Your task to perform on an android device: toggle airplane mode Image 0: 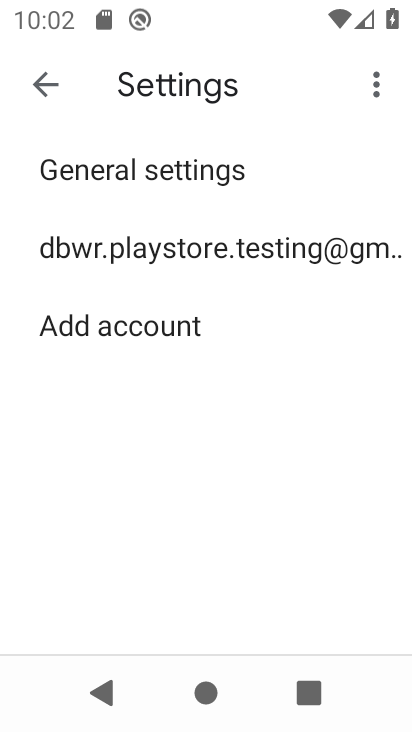
Step 0: press home button
Your task to perform on an android device: toggle airplane mode Image 1: 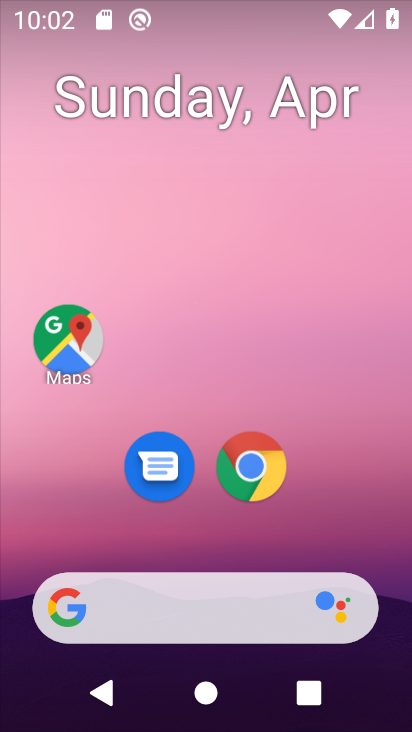
Step 1: drag from (289, 435) to (257, 11)
Your task to perform on an android device: toggle airplane mode Image 2: 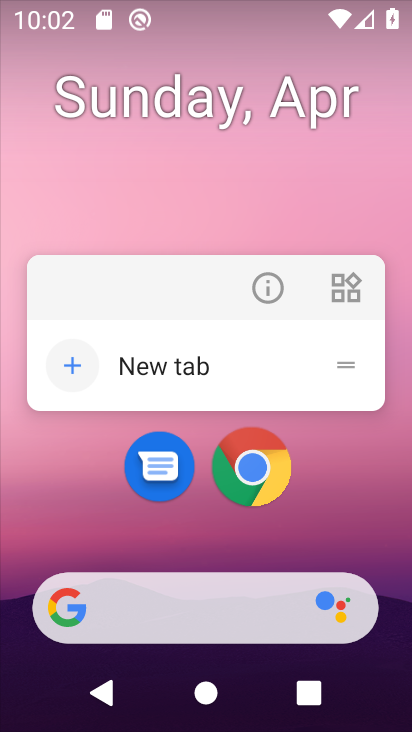
Step 2: drag from (368, 522) to (336, 4)
Your task to perform on an android device: toggle airplane mode Image 3: 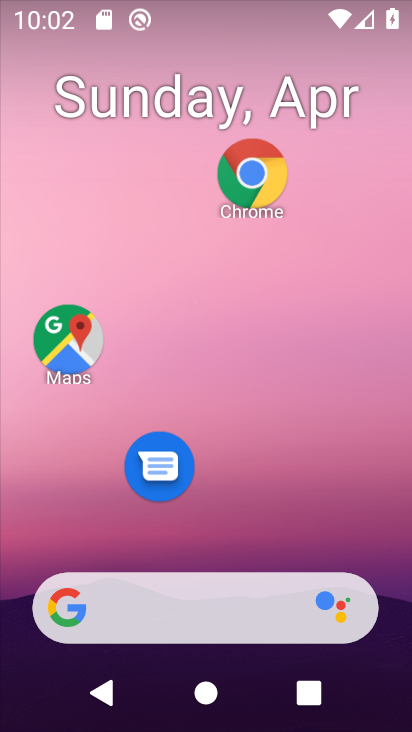
Step 3: drag from (338, 445) to (338, 151)
Your task to perform on an android device: toggle airplane mode Image 4: 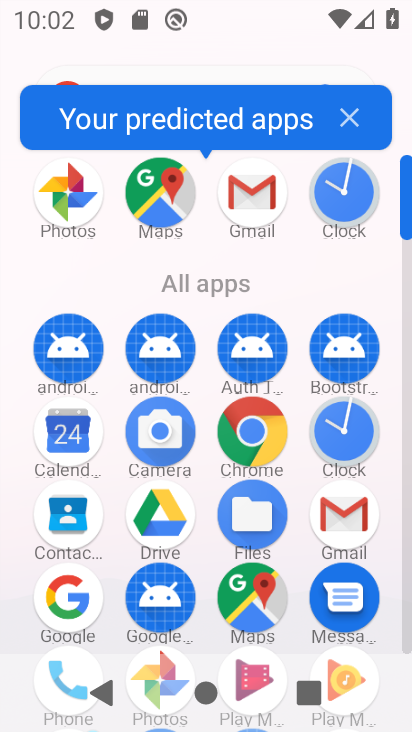
Step 4: drag from (385, 305) to (393, 154)
Your task to perform on an android device: toggle airplane mode Image 5: 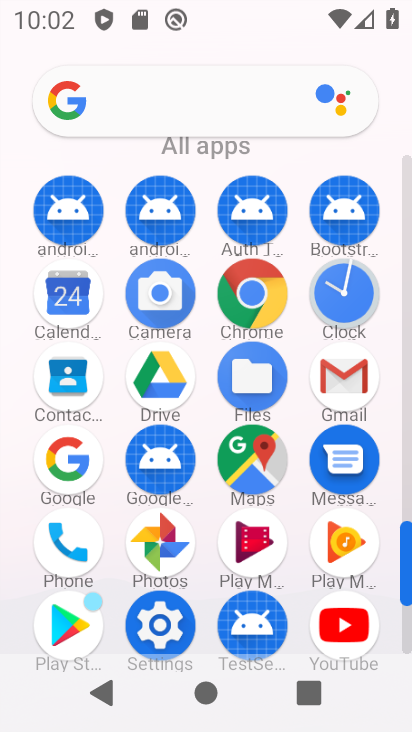
Step 5: click (163, 633)
Your task to perform on an android device: toggle airplane mode Image 6: 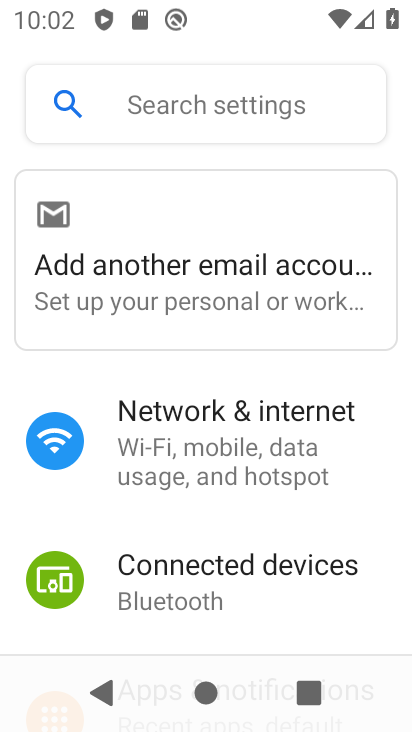
Step 6: click (281, 470)
Your task to perform on an android device: toggle airplane mode Image 7: 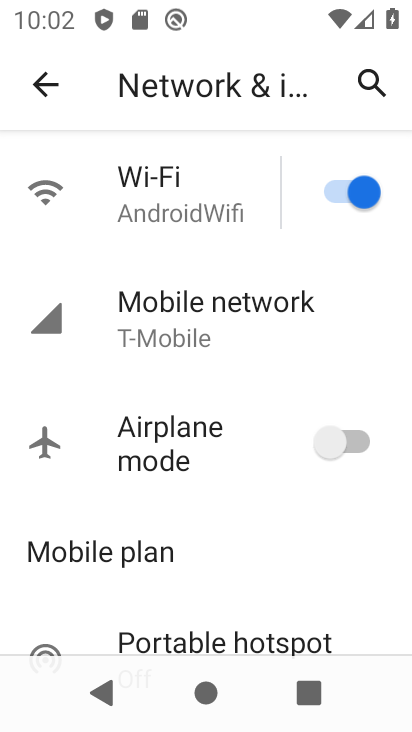
Step 7: click (345, 461)
Your task to perform on an android device: toggle airplane mode Image 8: 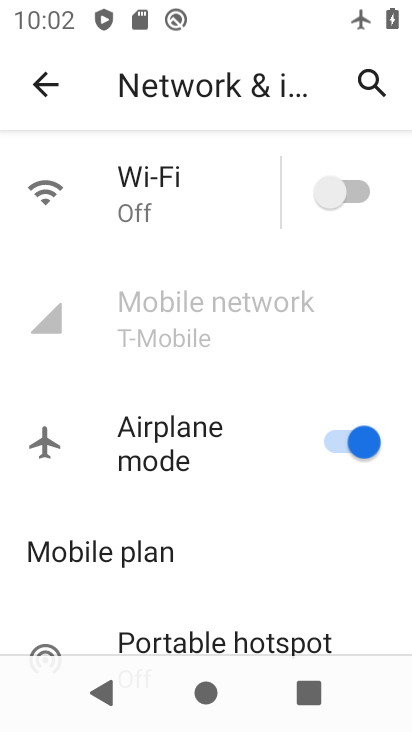
Step 8: task complete